Your task to perform on an android device: turn pop-ups off in chrome Image 0: 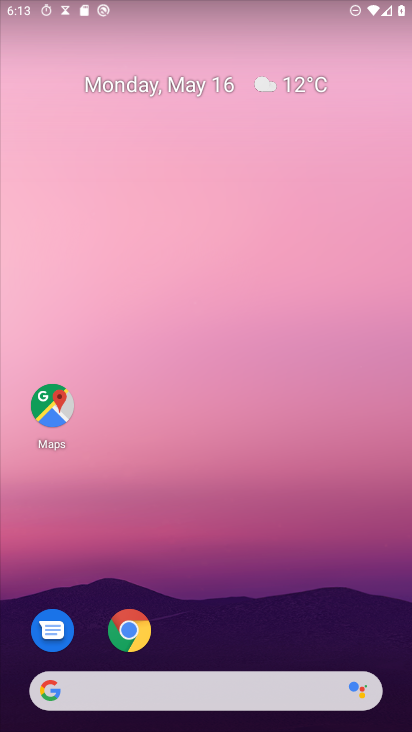
Step 0: click (135, 631)
Your task to perform on an android device: turn pop-ups off in chrome Image 1: 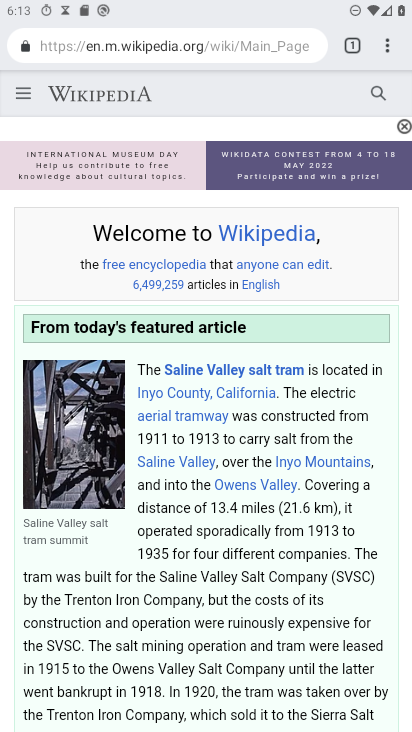
Step 1: drag from (390, 46) to (258, 552)
Your task to perform on an android device: turn pop-ups off in chrome Image 2: 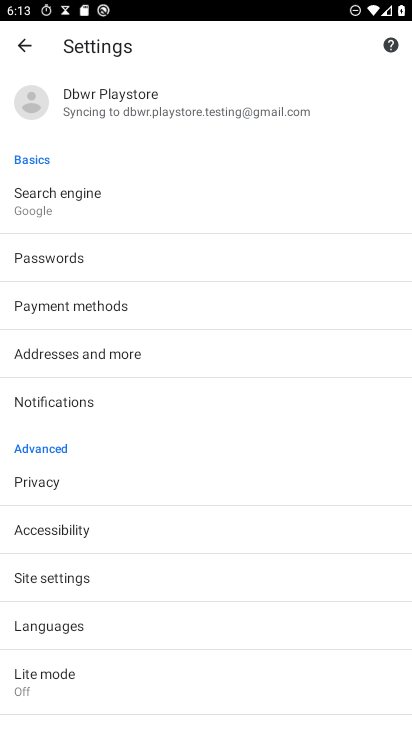
Step 2: drag from (216, 639) to (276, 199)
Your task to perform on an android device: turn pop-ups off in chrome Image 3: 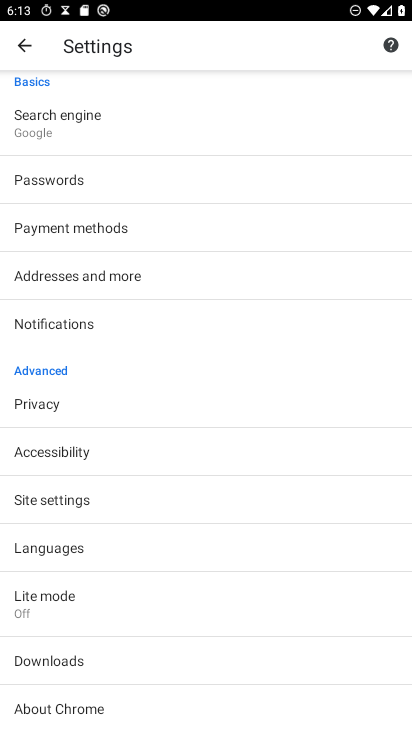
Step 3: click (80, 502)
Your task to perform on an android device: turn pop-ups off in chrome Image 4: 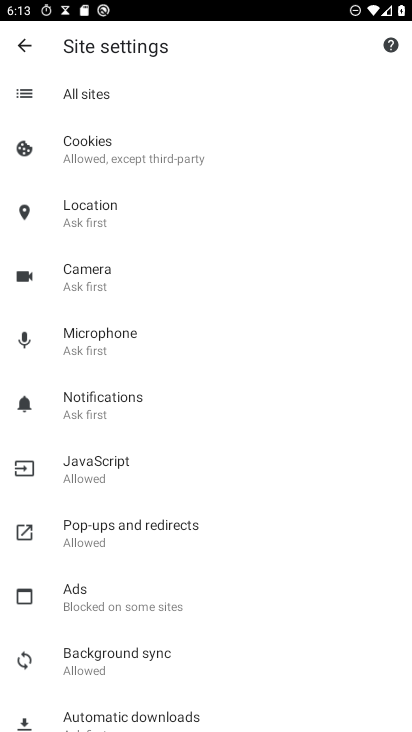
Step 4: click (74, 534)
Your task to perform on an android device: turn pop-ups off in chrome Image 5: 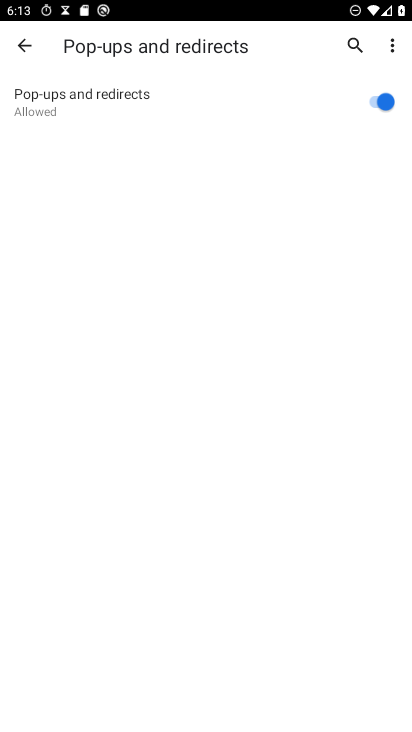
Step 5: click (386, 96)
Your task to perform on an android device: turn pop-ups off in chrome Image 6: 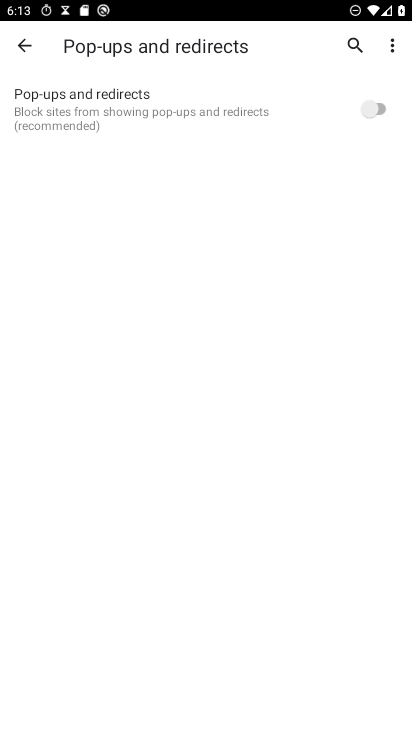
Step 6: task complete